Your task to perform on an android device: change text size in settings app Image 0: 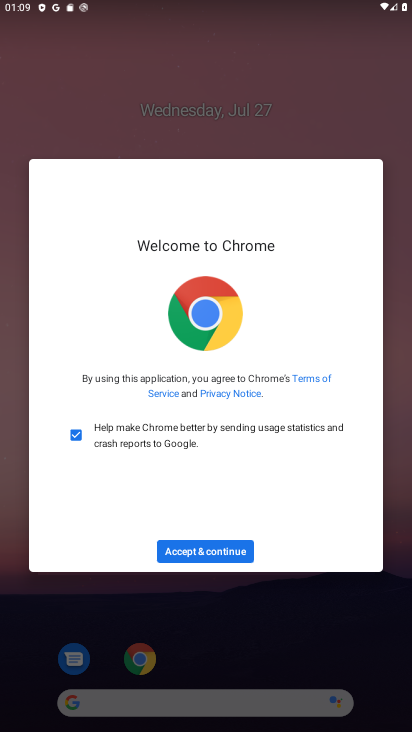
Step 0: press home button
Your task to perform on an android device: change text size in settings app Image 1: 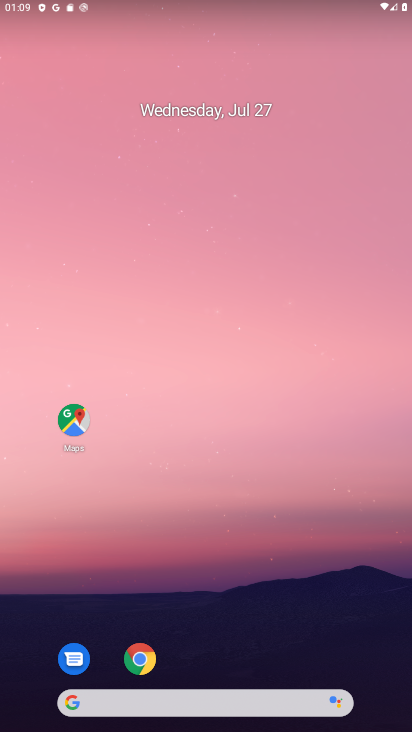
Step 1: drag from (288, 624) to (196, 0)
Your task to perform on an android device: change text size in settings app Image 2: 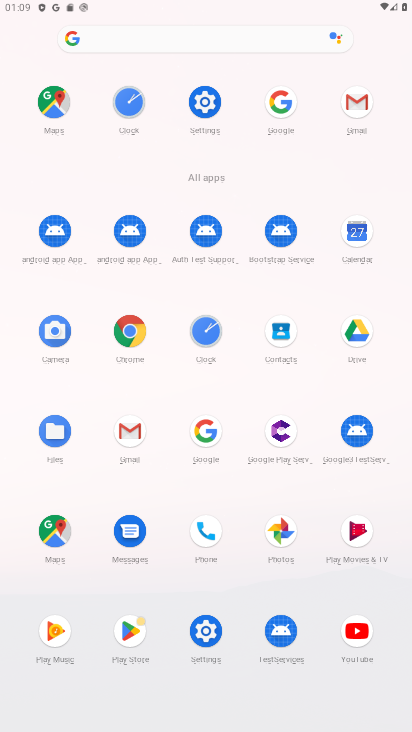
Step 2: click (202, 115)
Your task to perform on an android device: change text size in settings app Image 3: 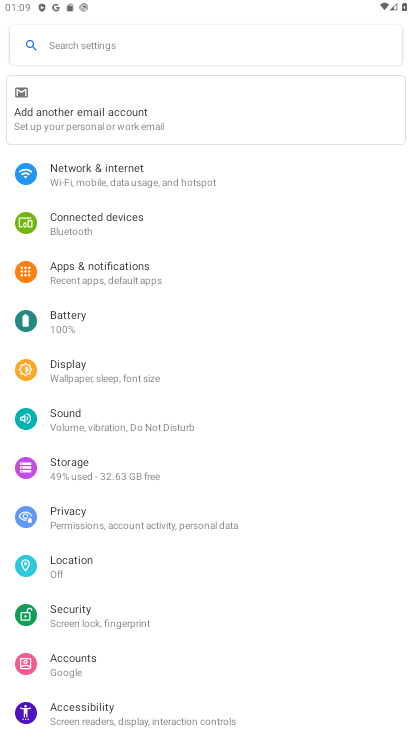
Step 3: click (106, 372)
Your task to perform on an android device: change text size in settings app Image 4: 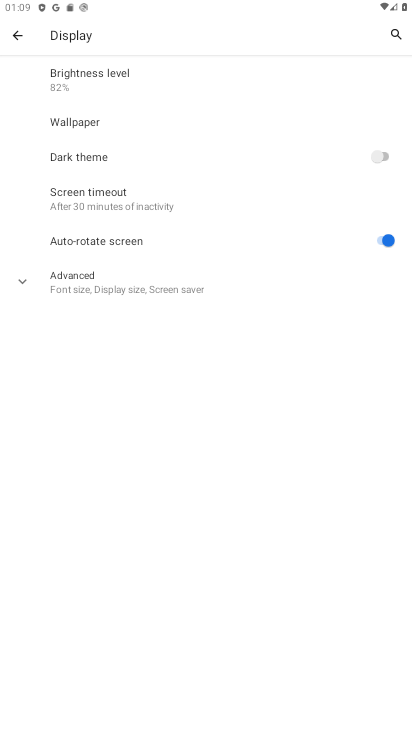
Step 4: click (151, 289)
Your task to perform on an android device: change text size in settings app Image 5: 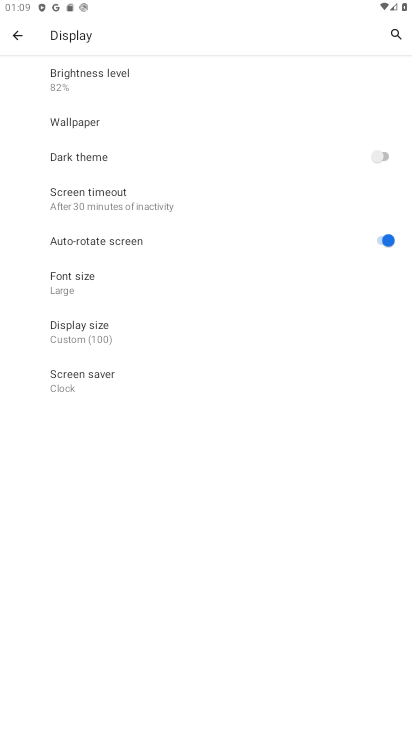
Step 5: click (126, 282)
Your task to perform on an android device: change text size in settings app Image 6: 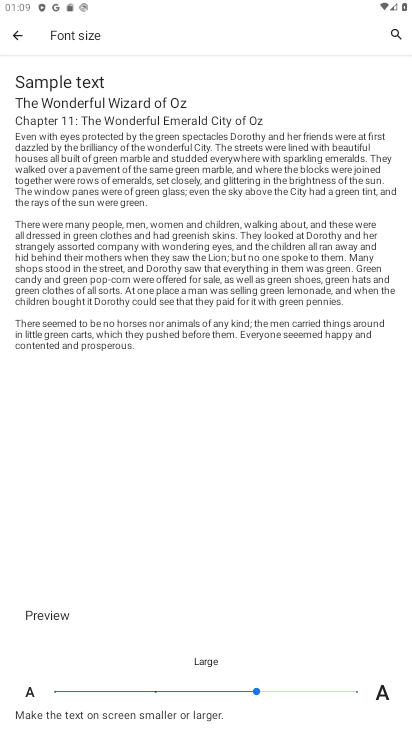
Step 6: task complete